Your task to perform on an android device: Open display settings Image 0: 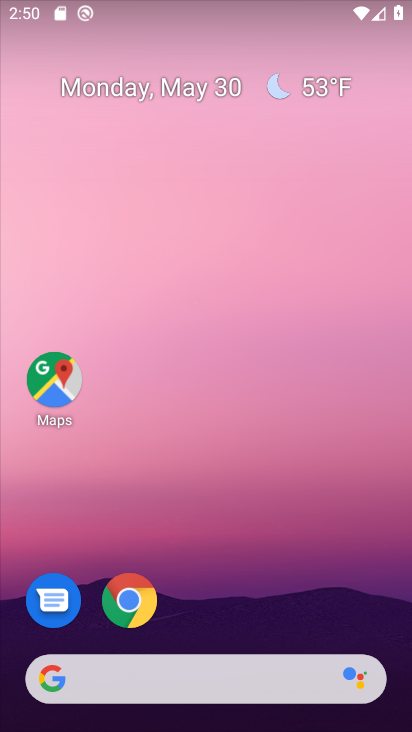
Step 0: click (336, 141)
Your task to perform on an android device: Open display settings Image 1: 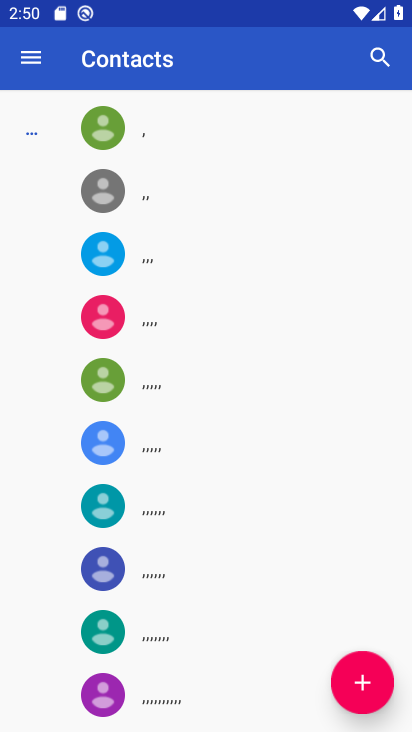
Step 1: press home button
Your task to perform on an android device: Open display settings Image 2: 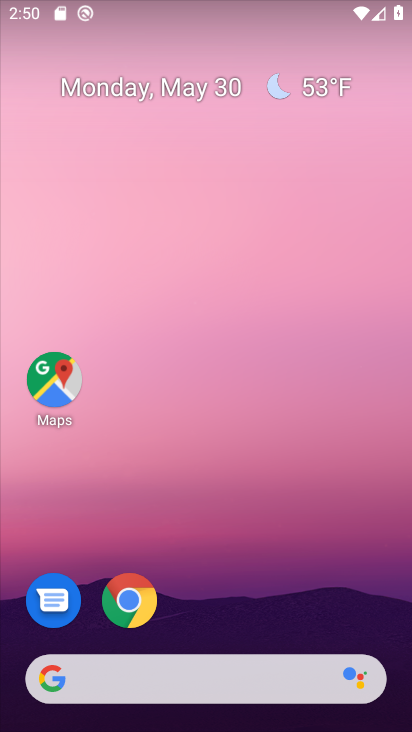
Step 2: drag from (298, 580) to (255, 17)
Your task to perform on an android device: Open display settings Image 3: 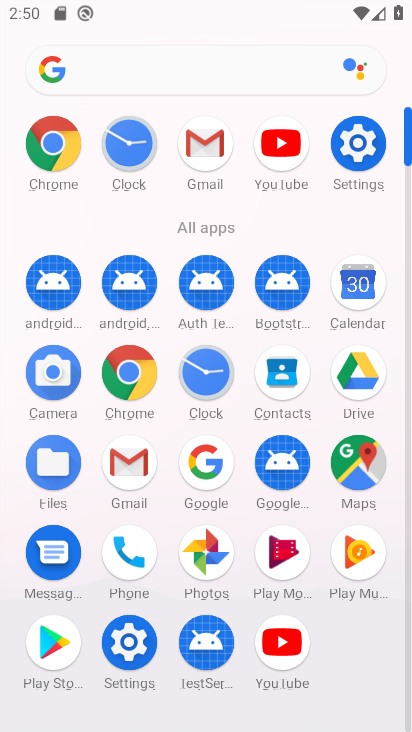
Step 3: click (386, 137)
Your task to perform on an android device: Open display settings Image 4: 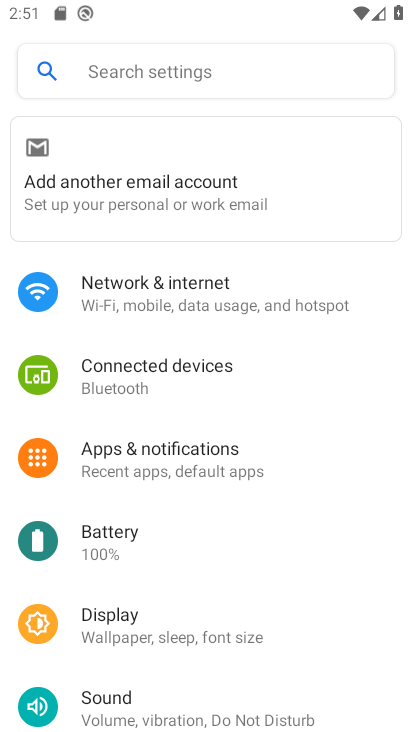
Step 4: click (142, 628)
Your task to perform on an android device: Open display settings Image 5: 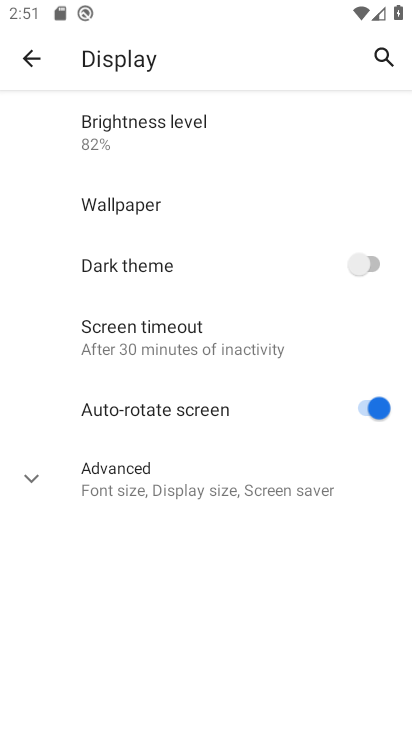
Step 5: task complete